Your task to perform on an android device: toggle notification dots Image 0: 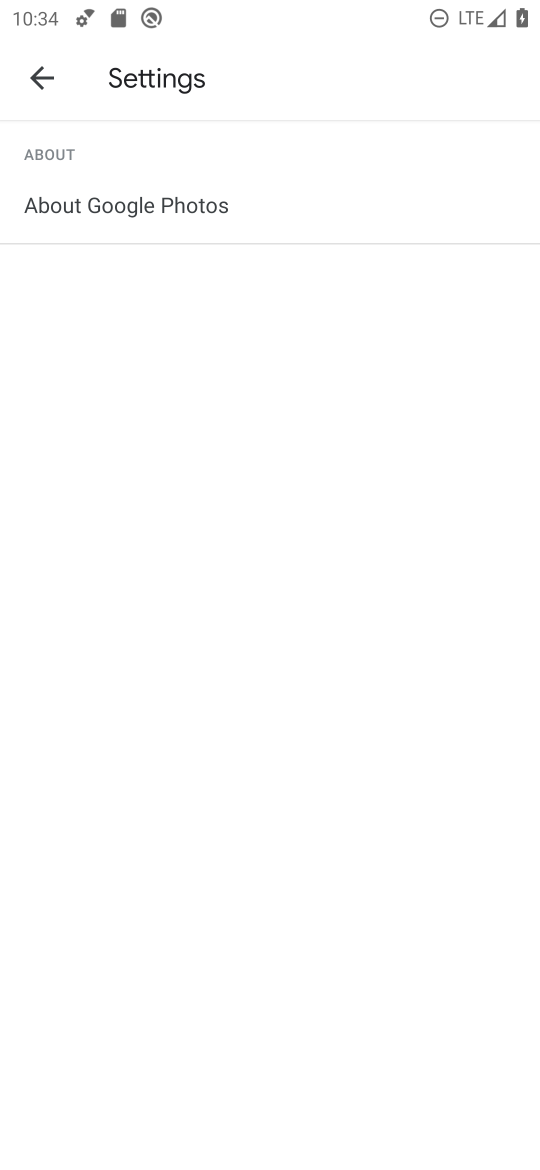
Step 0: press home button
Your task to perform on an android device: toggle notification dots Image 1: 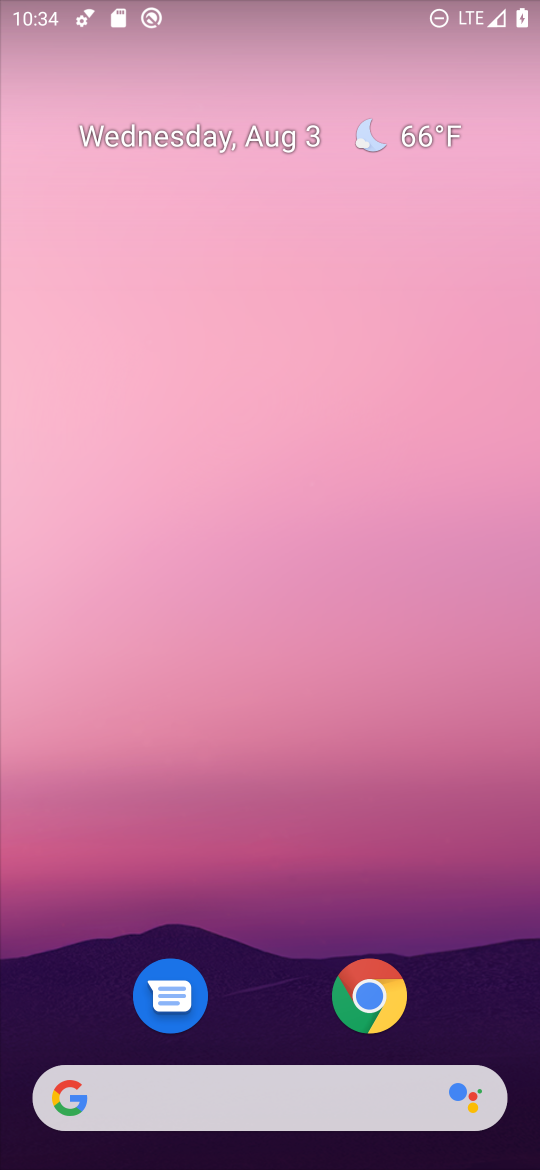
Step 1: drag from (249, 845) to (279, 107)
Your task to perform on an android device: toggle notification dots Image 2: 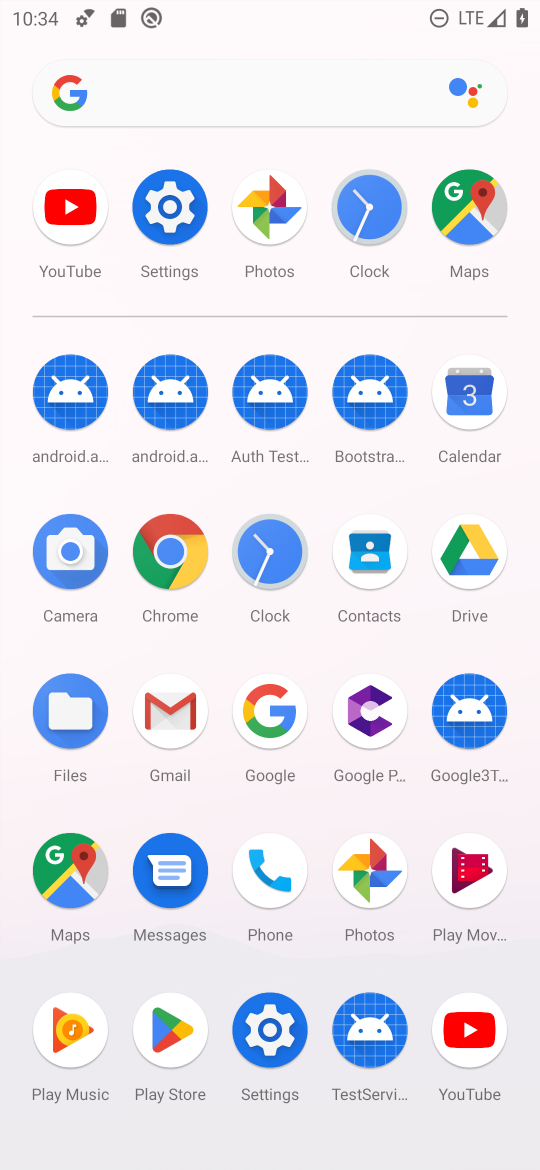
Step 2: click (169, 212)
Your task to perform on an android device: toggle notification dots Image 3: 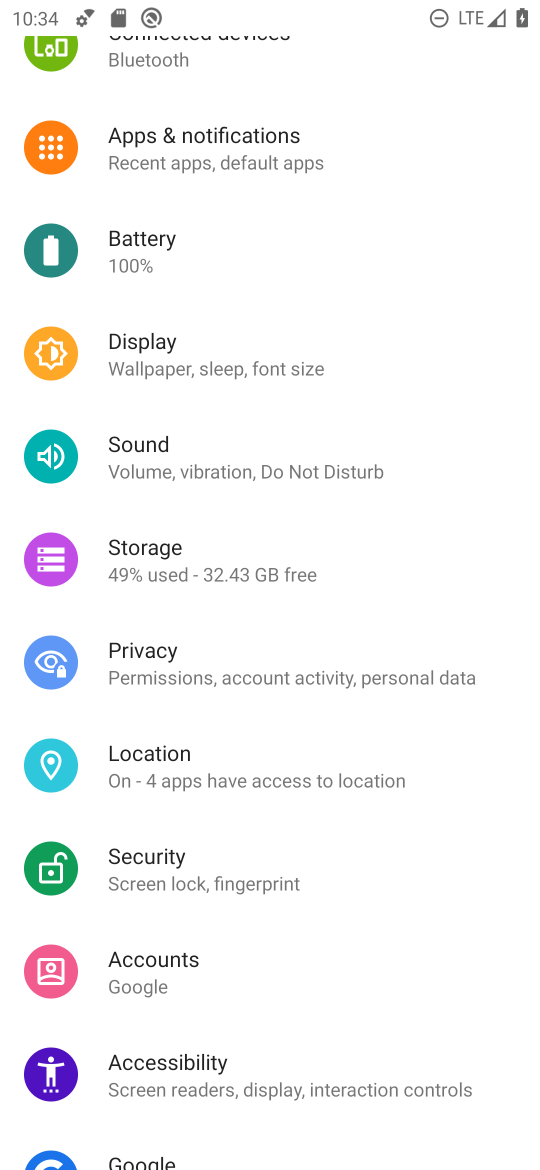
Step 3: click (278, 158)
Your task to perform on an android device: toggle notification dots Image 4: 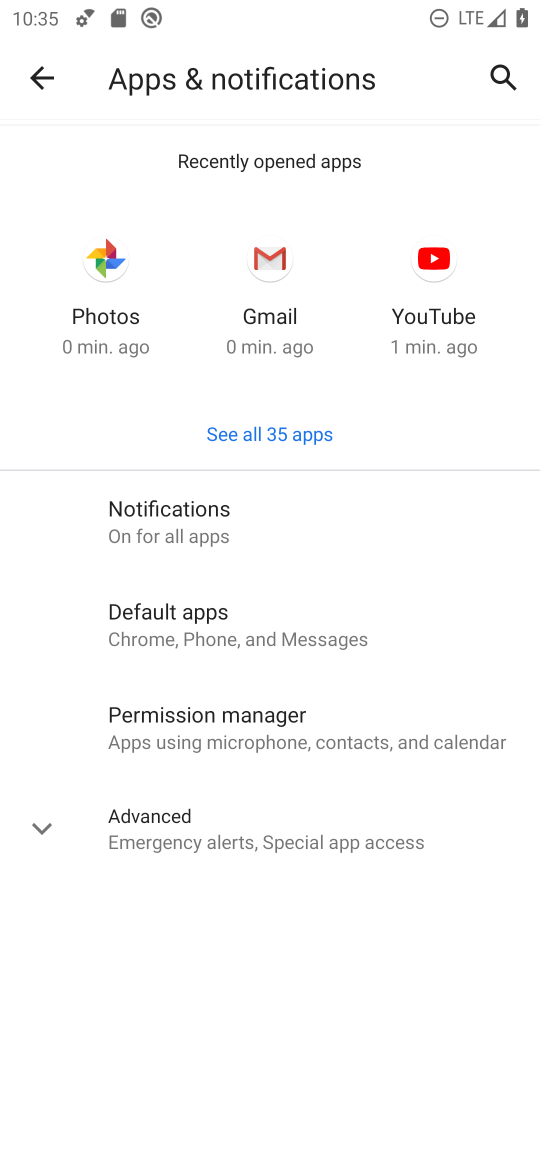
Step 4: click (211, 517)
Your task to perform on an android device: toggle notification dots Image 5: 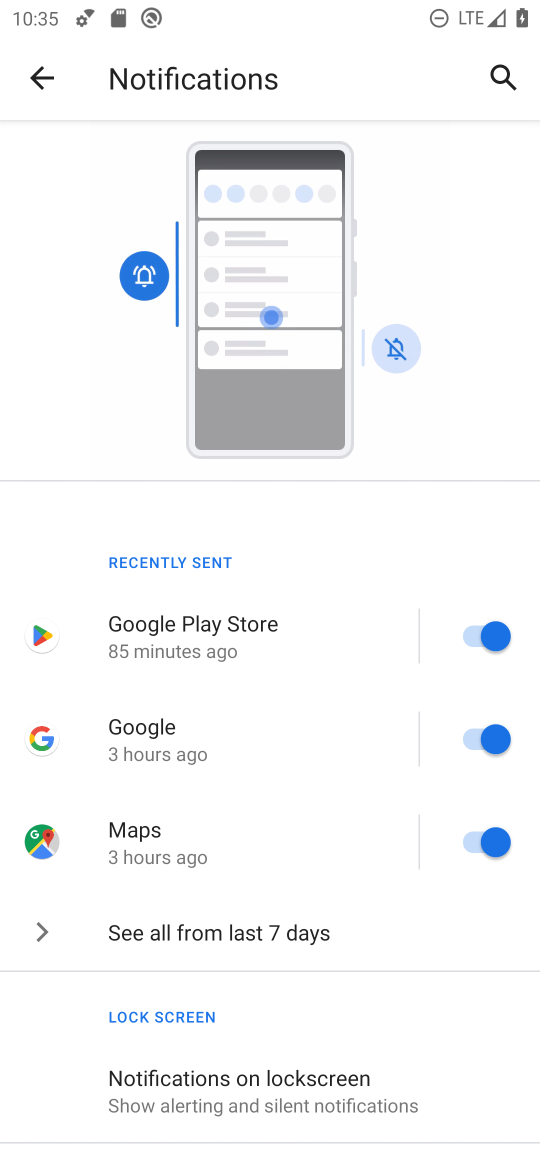
Step 5: drag from (358, 724) to (373, 110)
Your task to perform on an android device: toggle notification dots Image 6: 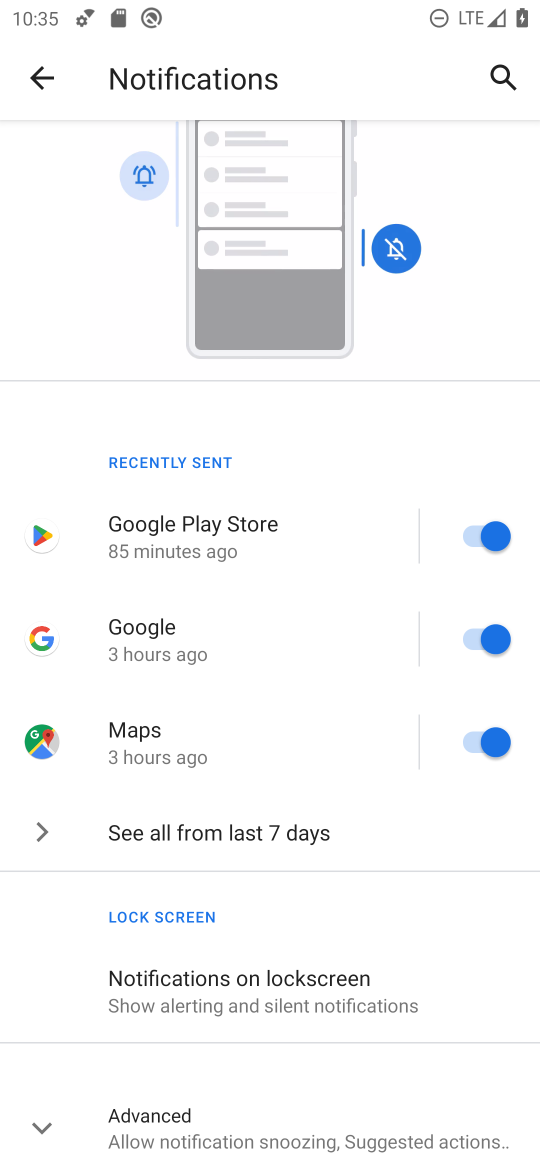
Step 6: click (47, 1118)
Your task to perform on an android device: toggle notification dots Image 7: 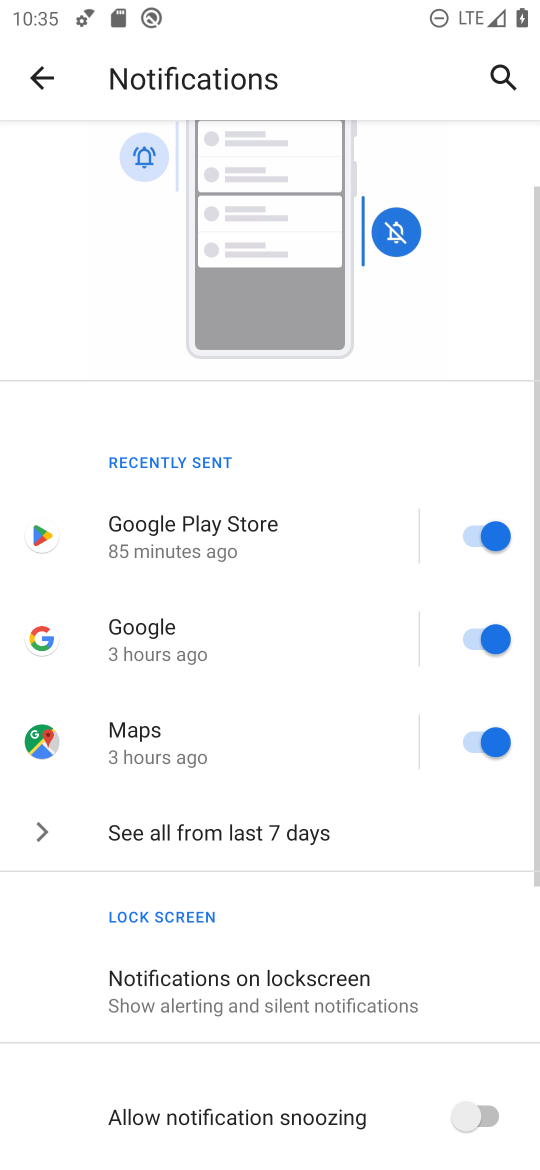
Step 7: drag from (306, 1065) to (277, 312)
Your task to perform on an android device: toggle notification dots Image 8: 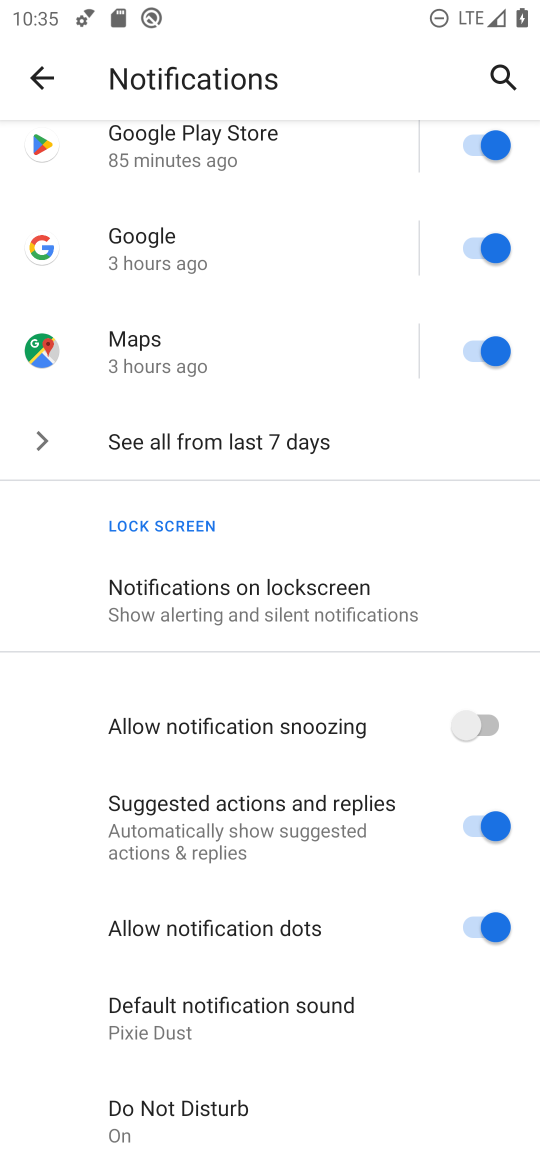
Step 8: click (477, 921)
Your task to perform on an android device: toggle notification dots Image 9: 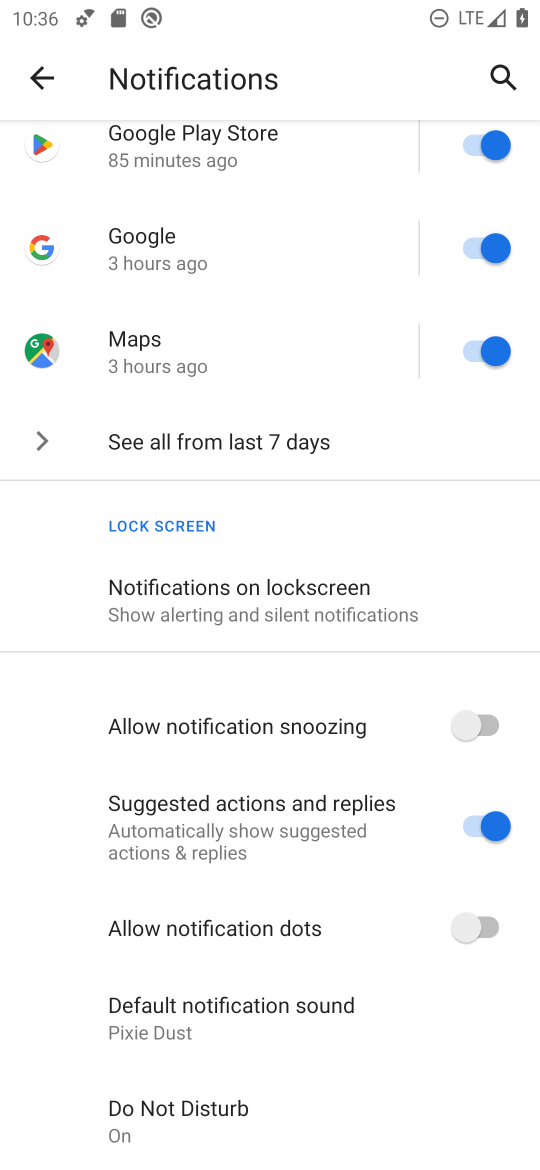
Step 9: task complete